Your task to perform on an android device: Open wifi settings Image 0: 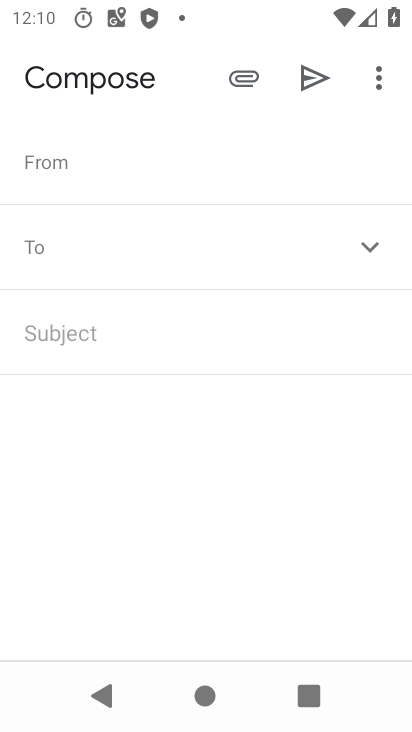
Step 0: drag from (342, 529) to (344, 69)
Your task to perform on an android device: Open wifi settings Image 1: 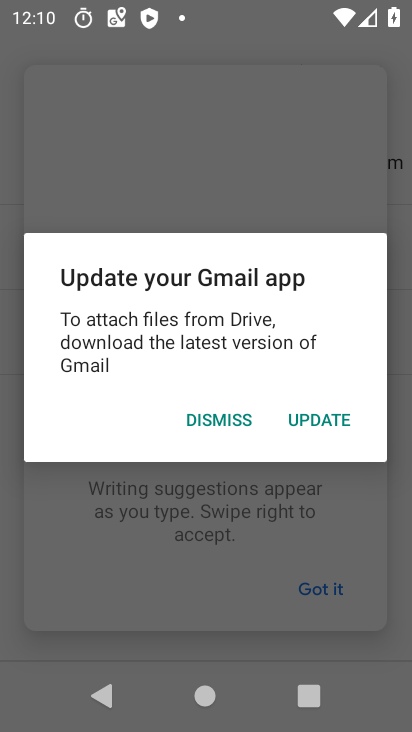
Step 1: press home button
Your task to perform on an android device: Open wifi settings Image 2: 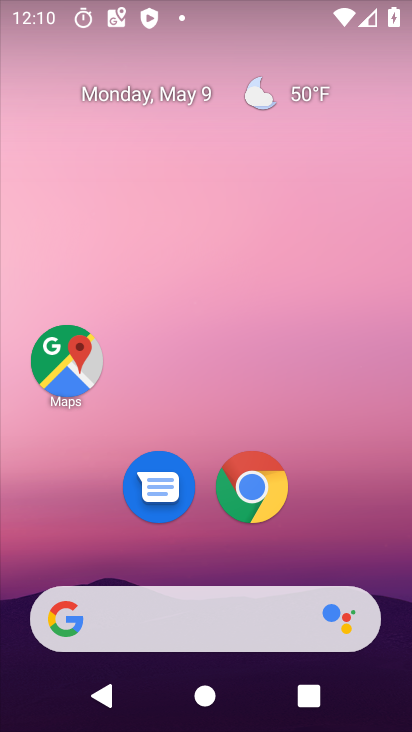
Step 2: drag from (336, 506) to (343, 144)
Your task to perform on an android device: Open wifi settings Image 3: 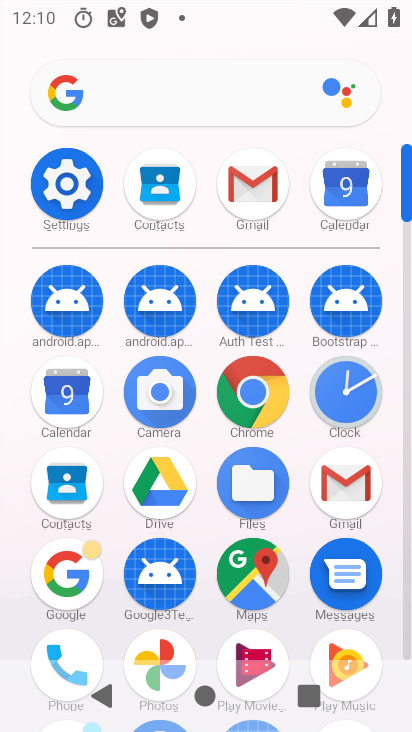
Step 3: click (61, 191)
Your task to perform on an android device: Open wifi settings Image 4: 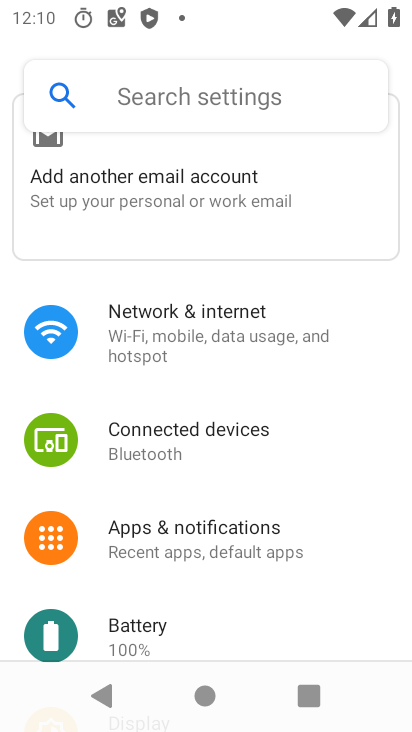
Step 4: click (195, 340)
Your task to perform on an android device: Open wifi settings Image 5: 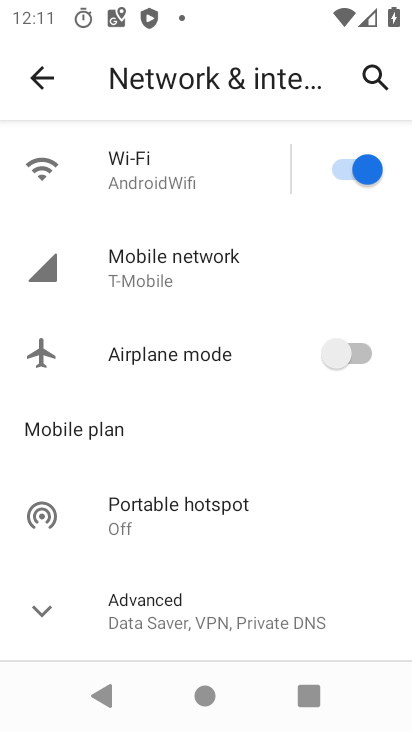
Step 5: click (166, 187)
Your task to perform on an android device: Open wifi settings Image 6: 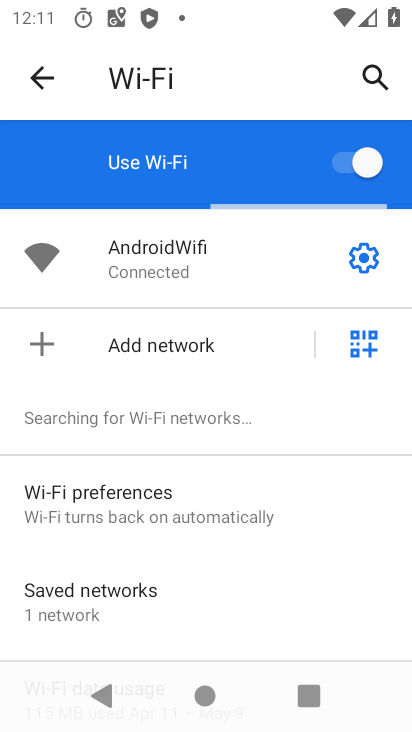
Step 6: task complete